Your task to perform on an android device: Search for seafood restaurants on Google Maps Image 0: 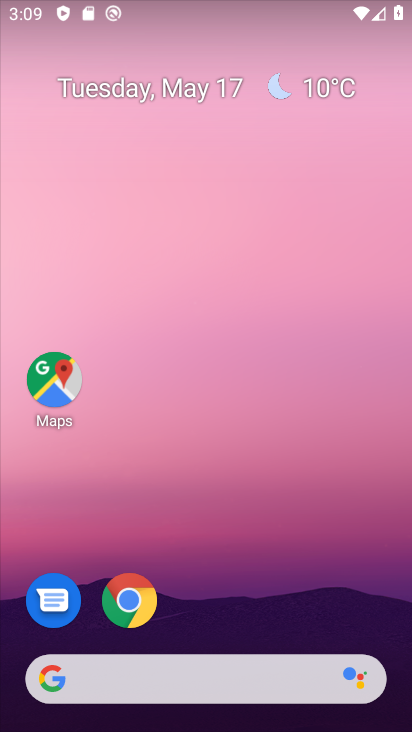
Step 0: click (46, 386)
Your task to perform on an android device: Search for seafood restaurants on Google Maps Image 1: 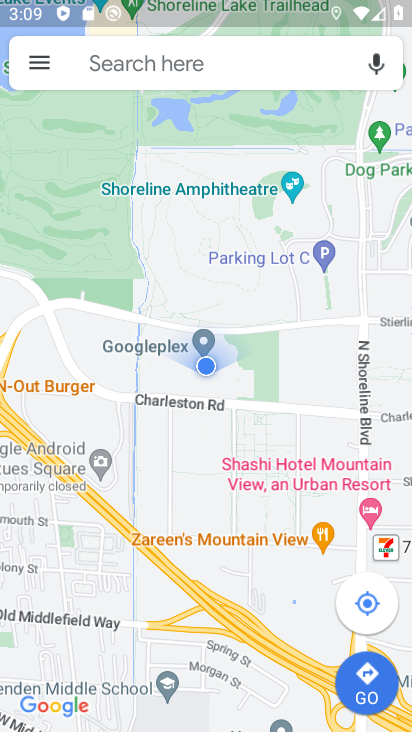
Step 1: click (215, 55)
Your task to perform on an android device: Search for seafood restaurants on Google Maps Image 2: 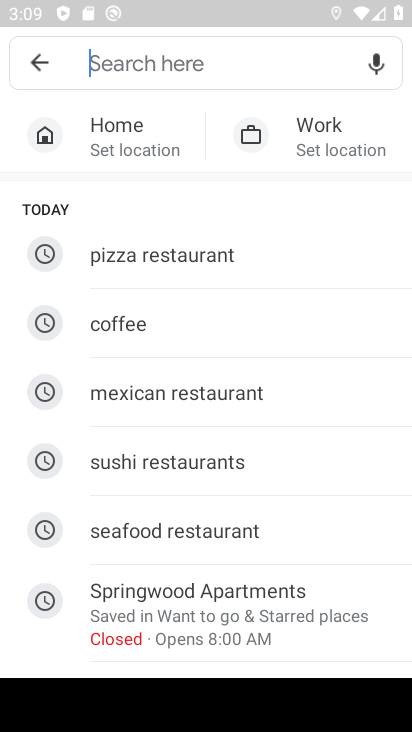
Step 2: type "seafood restaurants"
Your task to perform on an android device: Search for seafood restaurants on Google Maps Image 3: 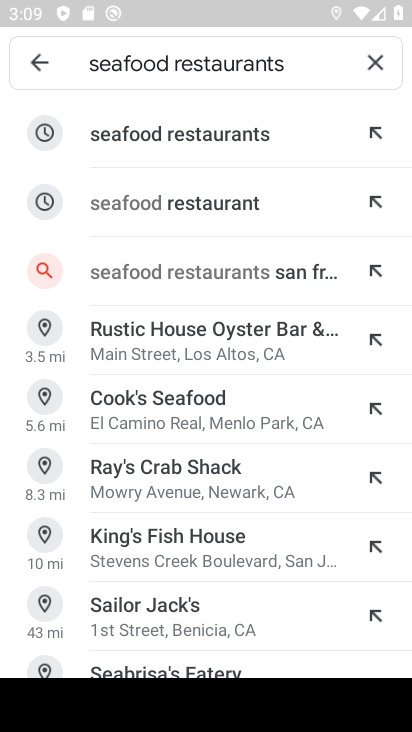
Step 3: click (144, 131)
Your task to perform on an android device: Search for seafood restaurants on Google Maps Image 4: 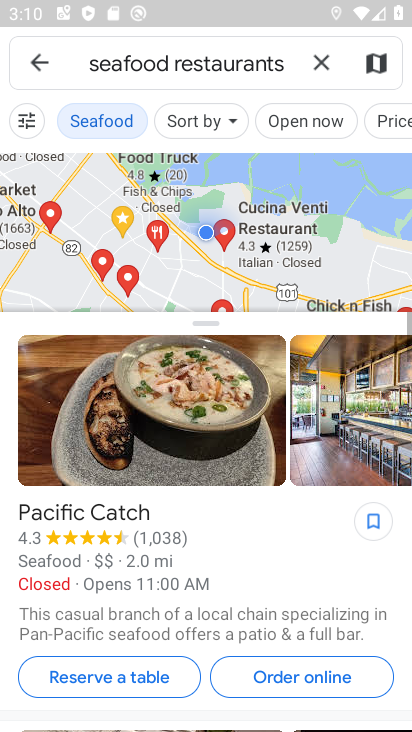
Step 4: task complete